Your task to perform on an android device: Go to privacy settings Image 0: 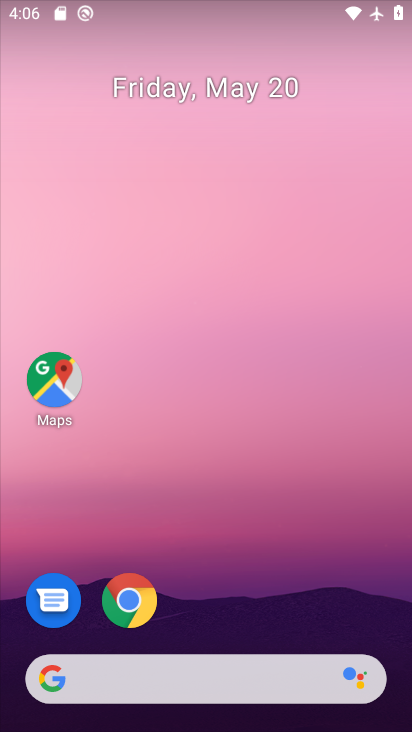
Step 0: drag from (275, 473) to (213, 93)
Your task to perform on an android device: Go to privacy settings Image 1: 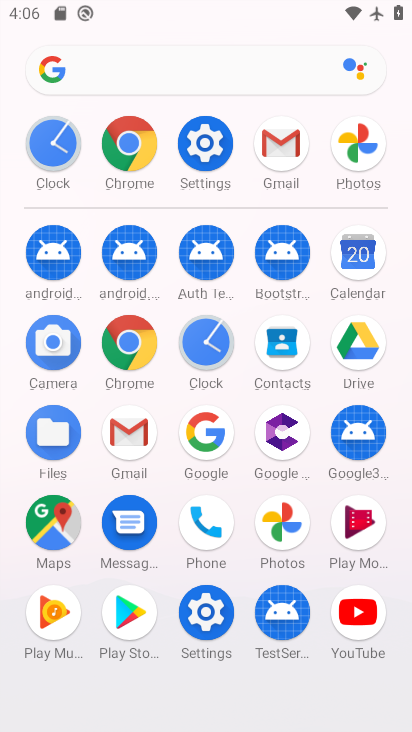
Step 1: click (204, 156)
Your task to perform on an android device: Go to privacy settings Image 2: 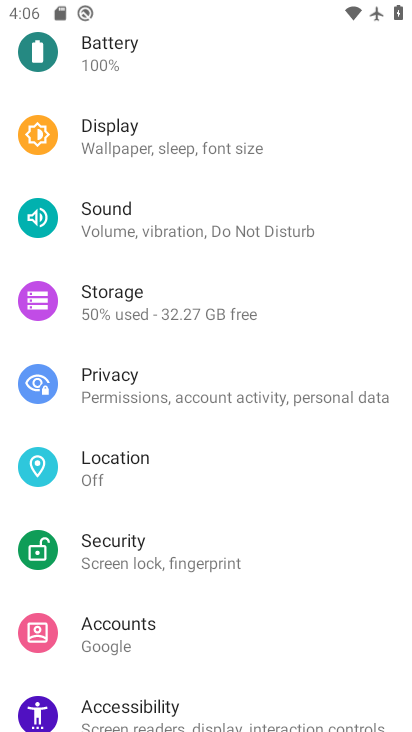
Step 2: click (182, 380)
Your task to perform on an android device: Go to privacy settings Image 3: 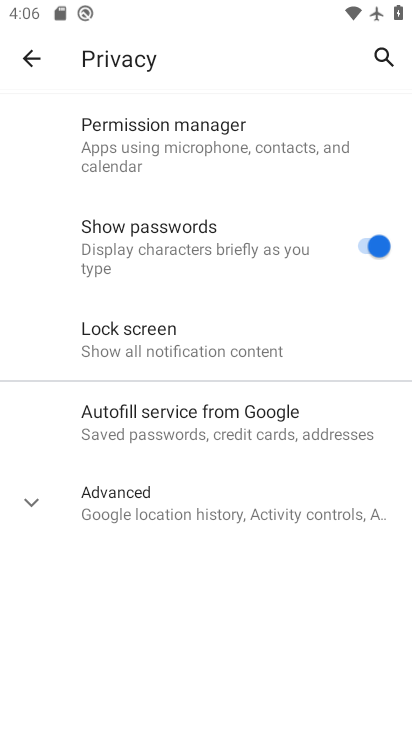
Step 3: task complete